Your task to perform on an android device: Open Google Maps and go to "Timeline" Image 0: 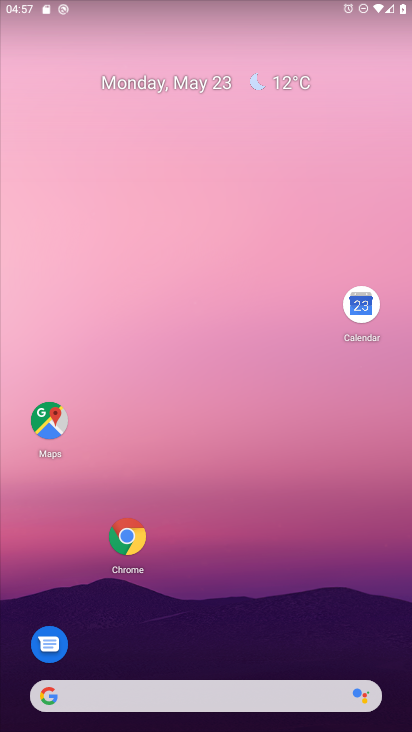
Step 0: click (43, 416)
Your task to perform on an android device: Open Google Maps and go to "Timeline" Image 1: 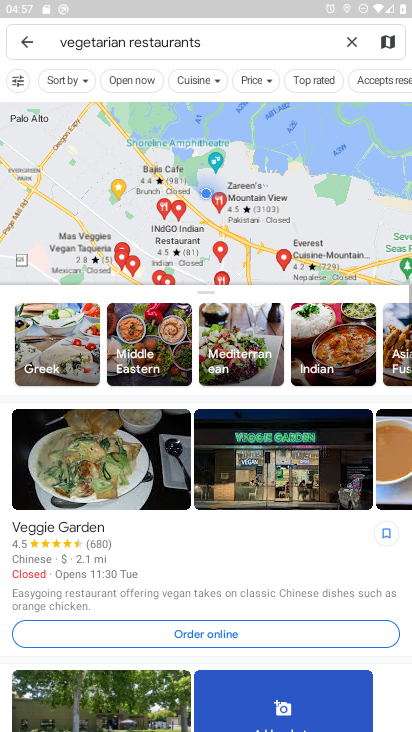
Step 1: click (17, 41)
Your task to perform on an android device: Open Google Maps and go to "Timeline" Image 2: 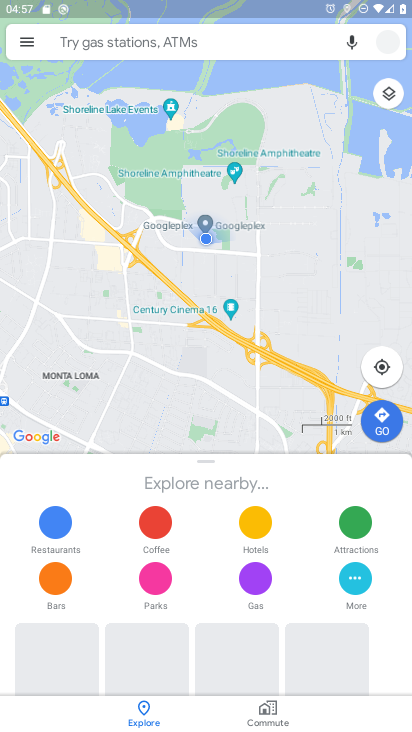
Step 2: click (19, 41)
Your task to perform on an android device: Open Google Maps and go to "Timeline" Image 3: 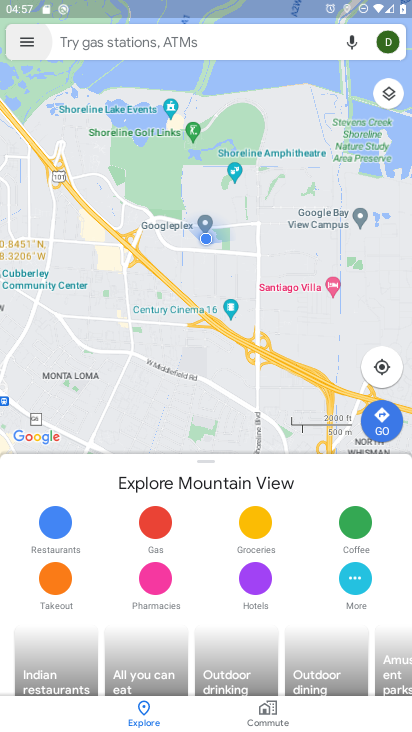
Step 3: click (19, 41)
Your task to perform on an android device: Open Google Maps and go to "Timeline" Image 4: 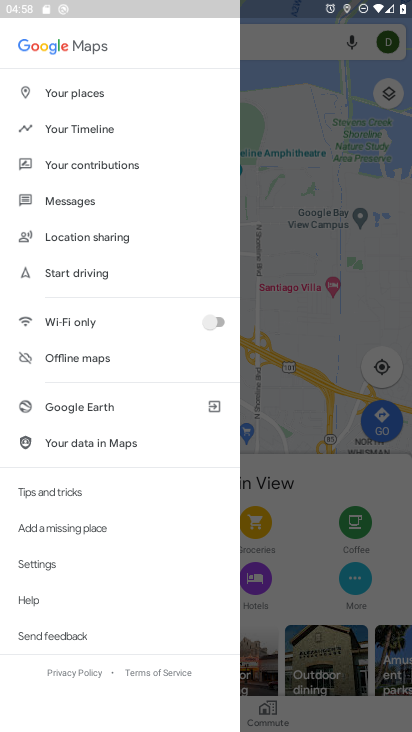
Step 4: click (99, 128)
Your task to perform on an android device: Open Google Maps and go to "Timeline" Image 5: 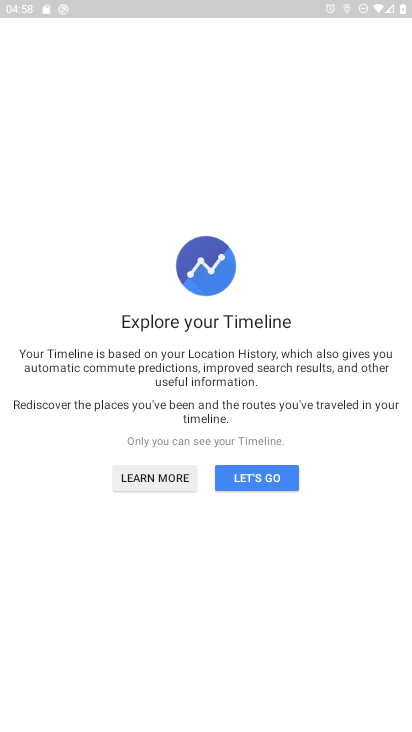
Step 5: click (265, 482)
Your task to perform on an android device: Open Google Maps and go to "Timeline" Image 6: 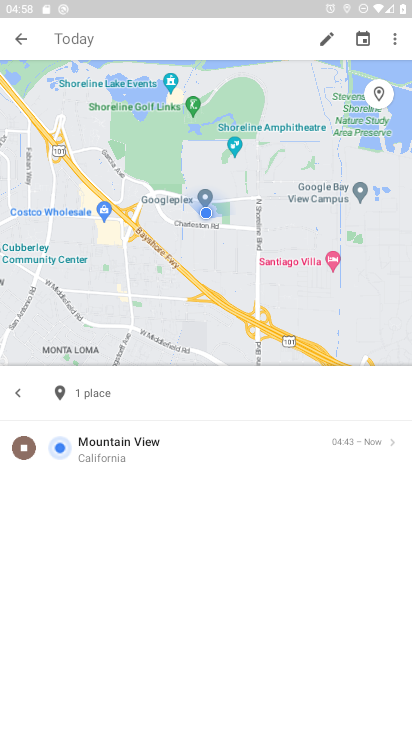
Step 6: task complete